Your task to perform on an android device: Check the weather Image 0: 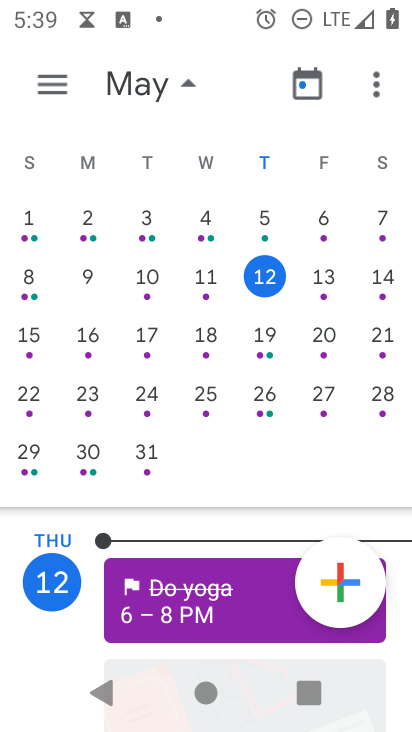
Step 0: press home button
Your task to perform on an android device: Check the weather Image 1: 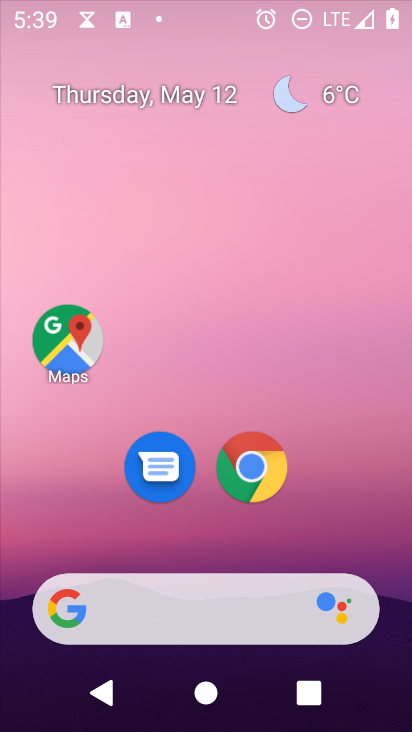
Step 1: drag from (265, 642) to (326, 11)
Your task to perform on an android device: Check the weather Image 2: 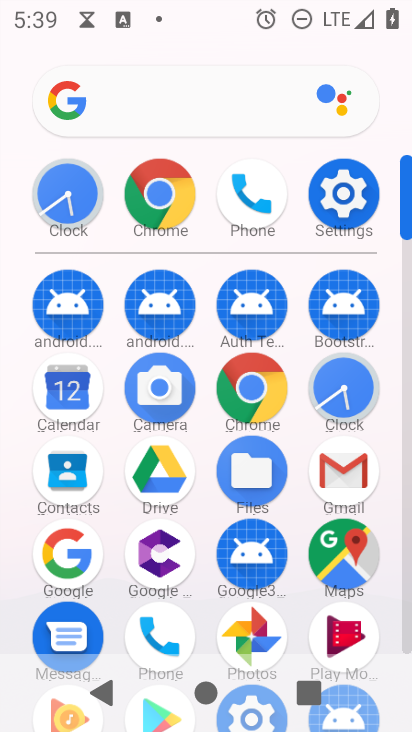
Step 2: click (270, 376)
Your task to perform on an android device: Check the weather Image 3: 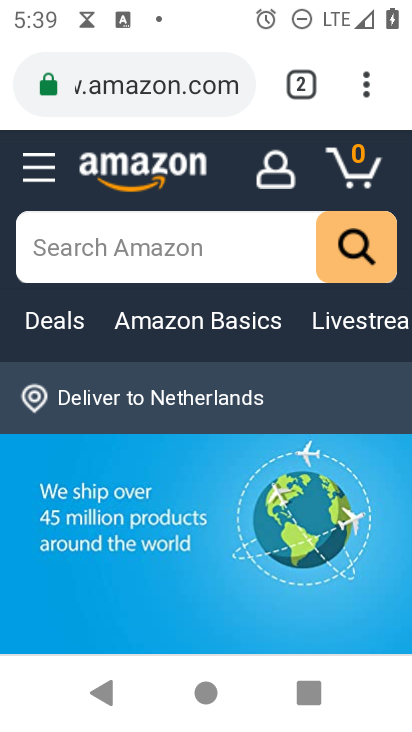
Step 3: click (156, 78)
Your task to perform on an android device: Check the weather Image 4: 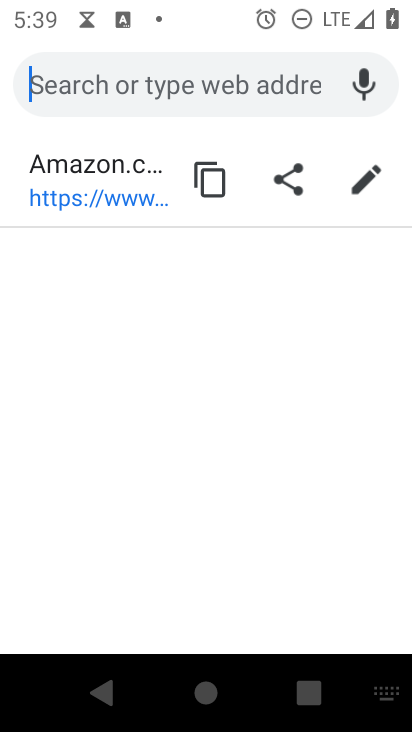
Step 4: type "check the weather"
Your task to perform on an android device: Check the weather Image 5: 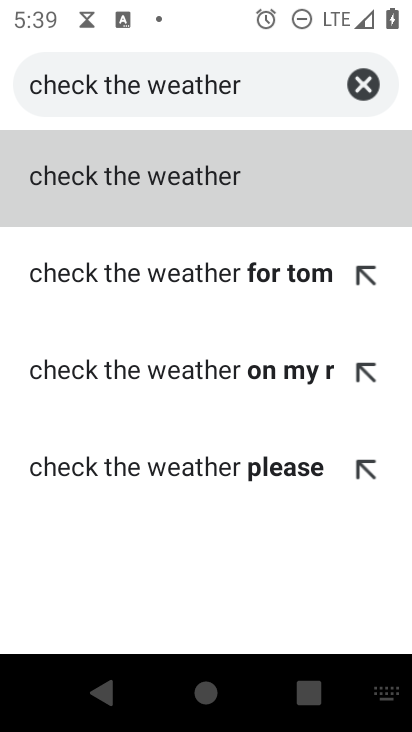
Step 5: click (233, 191)
Your task to perform on an android device: Check the weather Image 6: 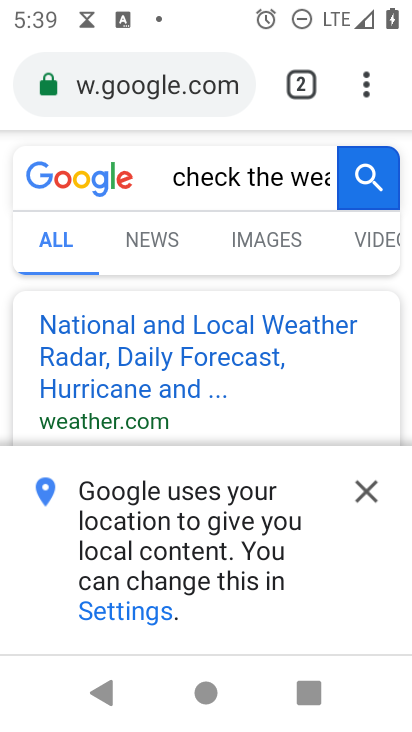
Step 6: task complete